Your task to perform on an android device: Open Chrome and go to the settings page Image 0: 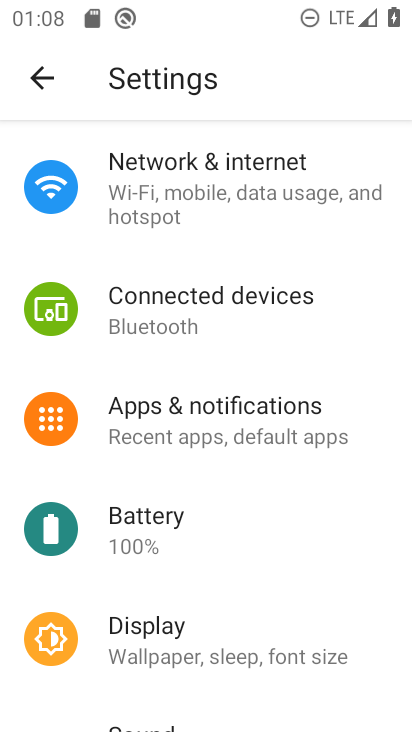
Step 0: press home button
Your task to perform on an android device: Open Chrome and go to the settings page Image 1: 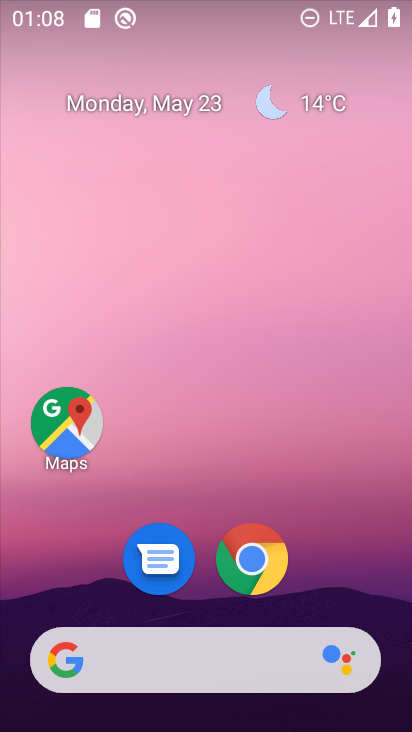
Step 1: click (256, 564)
Your task to perform on an android device: Open Chrome and go to the settings page Image 2: 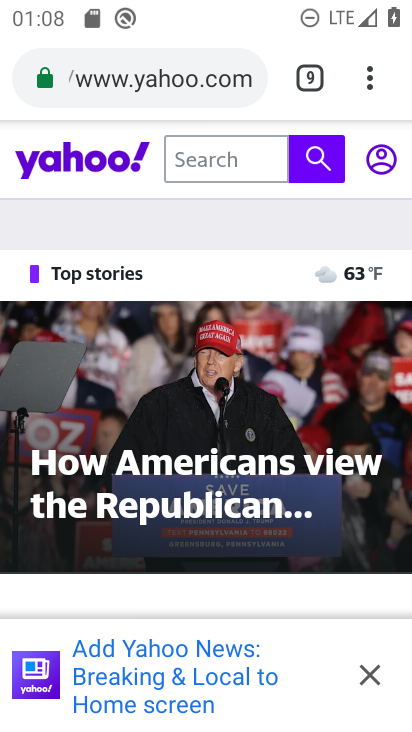
Step 2: click (370, 76)
Your task to perform on an android device: Open Chrome and go to the settings page Image 3: 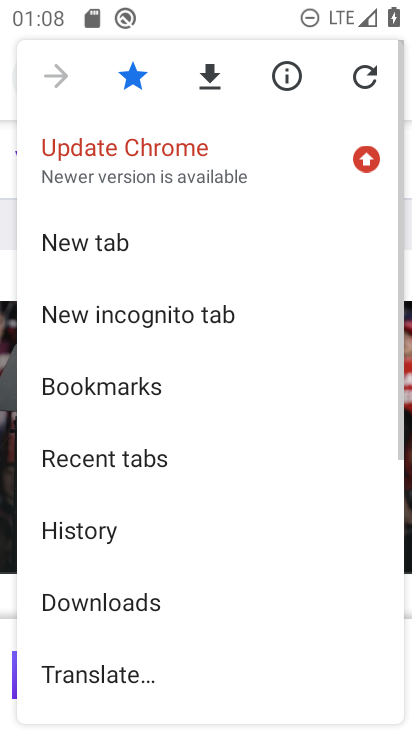
Step 3: drag from (208, 555) to (203, 115)
Your task to perform on an android device: Open Chrome and go to the settings page Image 4: 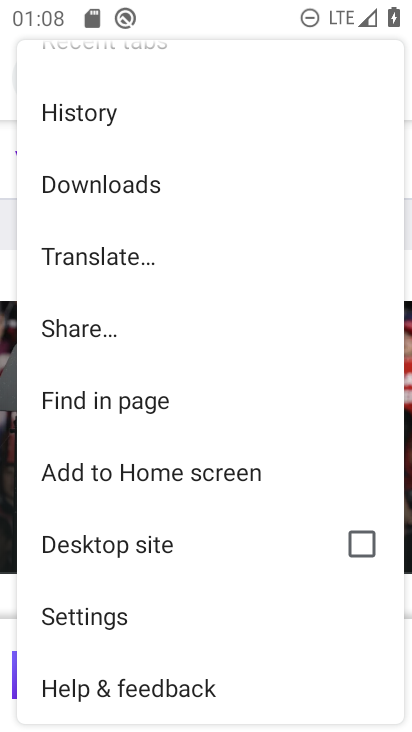
Step 4: click (108, 611)
Your task to perform on an android device: Open Chrome and go to the settings page Image 5: 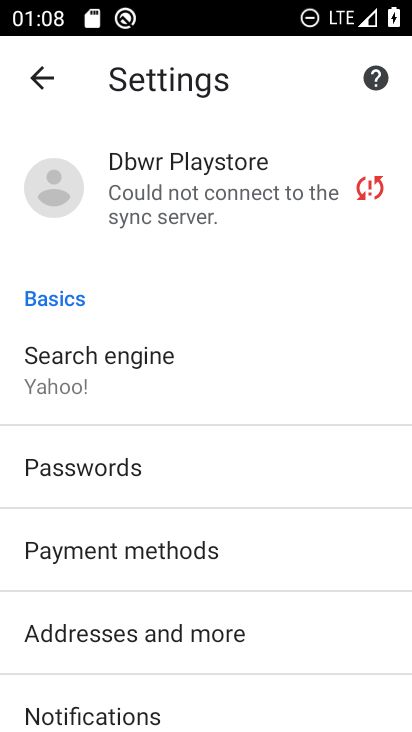
Step 5: task complete